Your task to perform on an android device: turn on javascript in the chrome app Image 0: 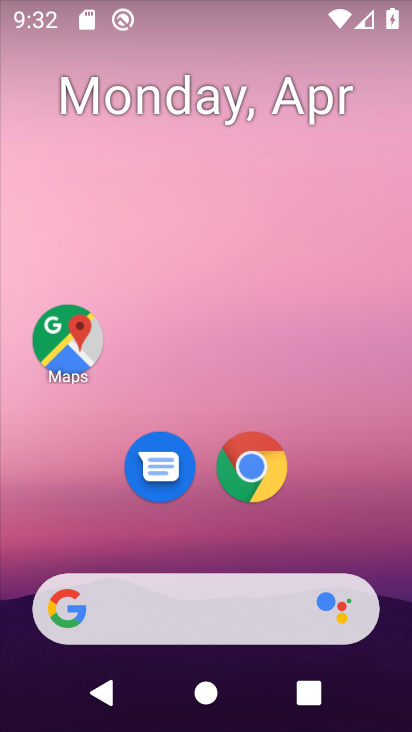
Step 0: click (252, 465)
Your task to perform on an android device: turn on javascript in the chrome app Image 1: 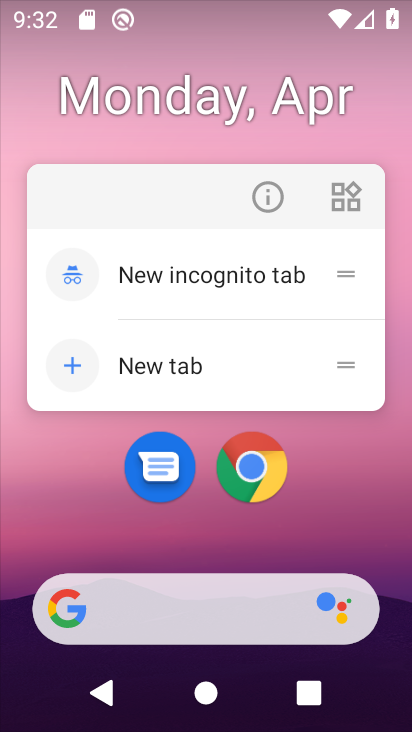
Step 1: click (239, 458)
Your task to perform on an android device: turn on javascript in the chrome app Image 2: 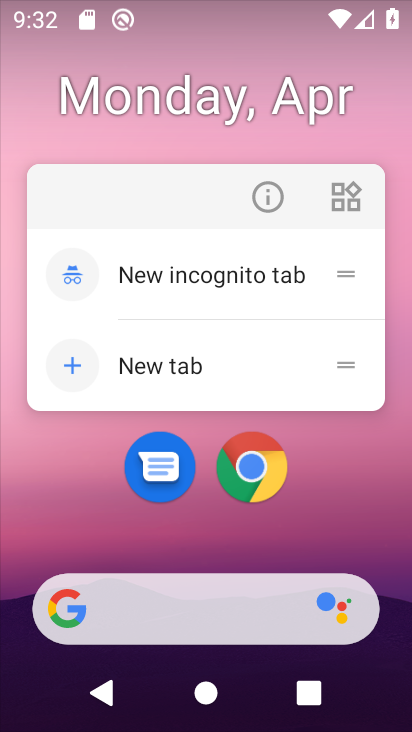
Step 2: click (249, 471)
Your task to perform on an android device: turn on javascript in the chrome app Image 3: 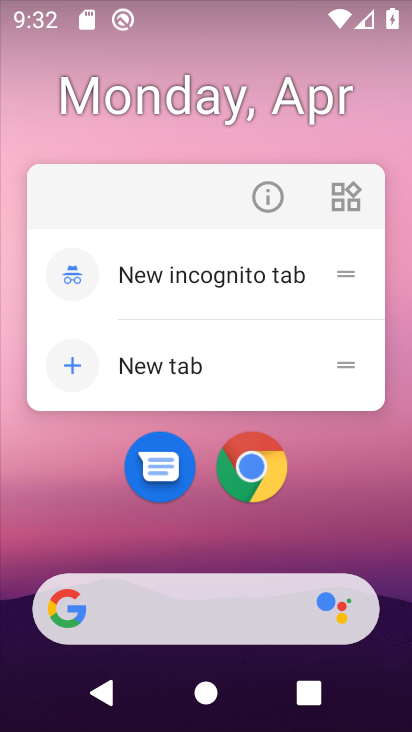
Step 3: click (247, 465)
Your task to perform on an android device: turn on javascript in the chrome app Image 4: 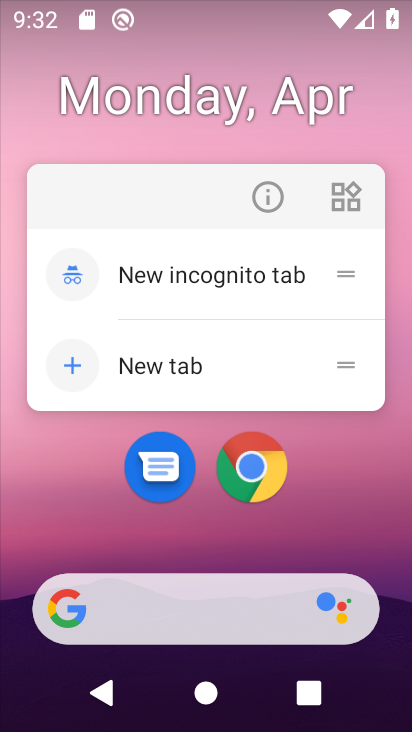
Step 4: click (250, 453)
Your task to perform on an android device: turn on javascript in the chrome app Image 5: 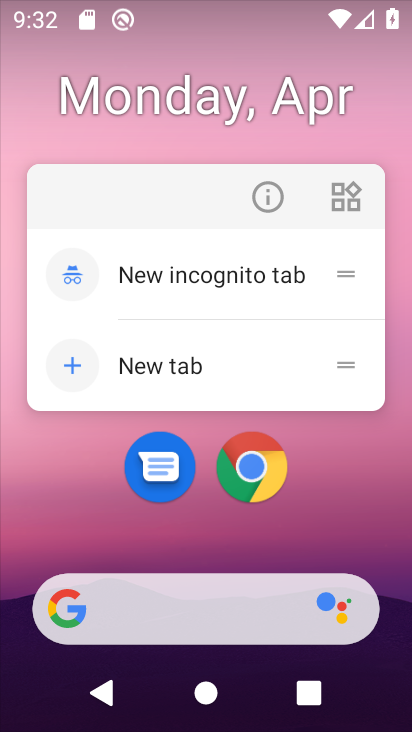
Step 5: click (265, 456)
Your task to perform on an android device: turn on javascript in the chrome app Image 6: 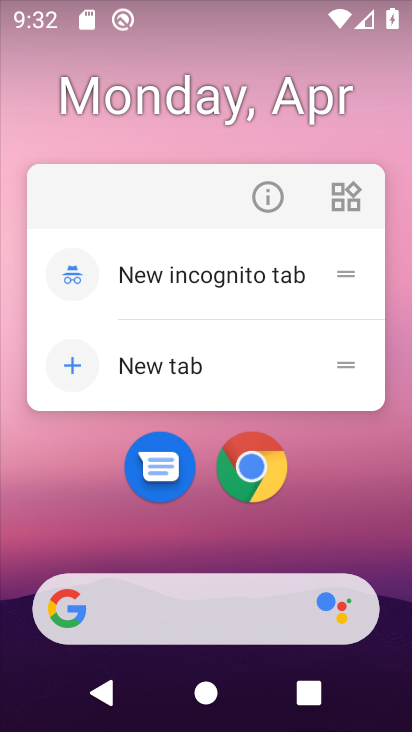
Step 6: click (267, 456)
Your task to perform on an android device: turn on javascript in the chrome app Image 7: 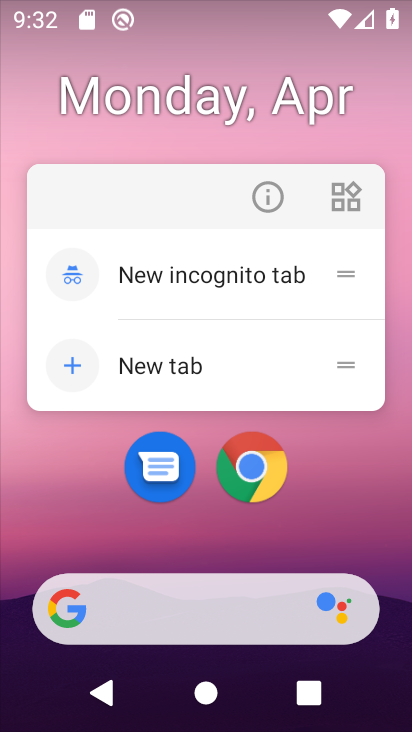
Step 7: click (253, 465)
Your task to perform on an android device: turn on javascript in the chrome app Image 8: 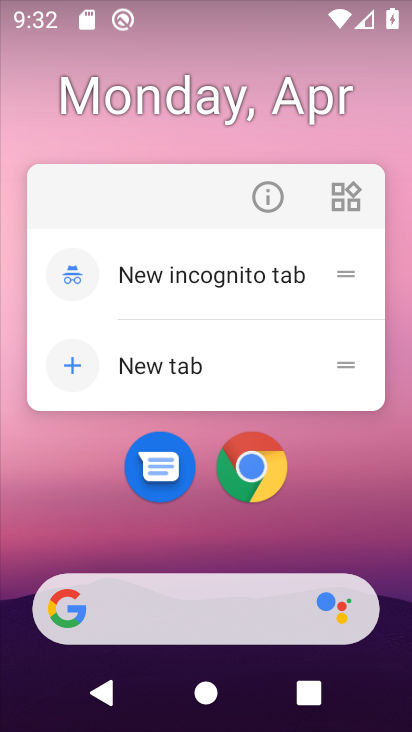
Step 8: click (253, 465)
Your task to perform on an android device: turn on javascript in the chrome app Image 9: 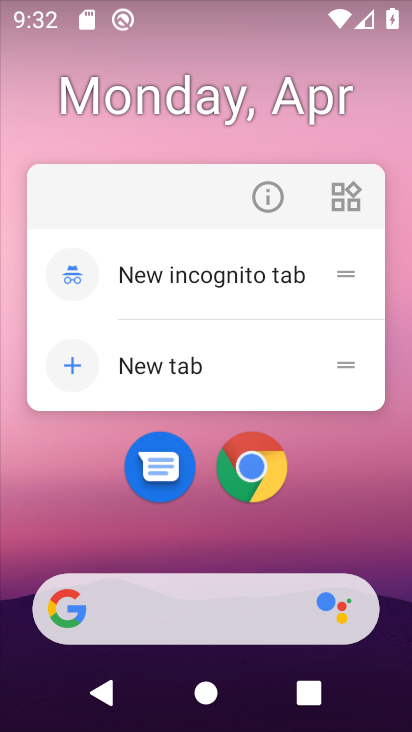
Step 9: click (261, 480)
Your task to perform on an android device: turn on javascript in the chrome app Image 10: 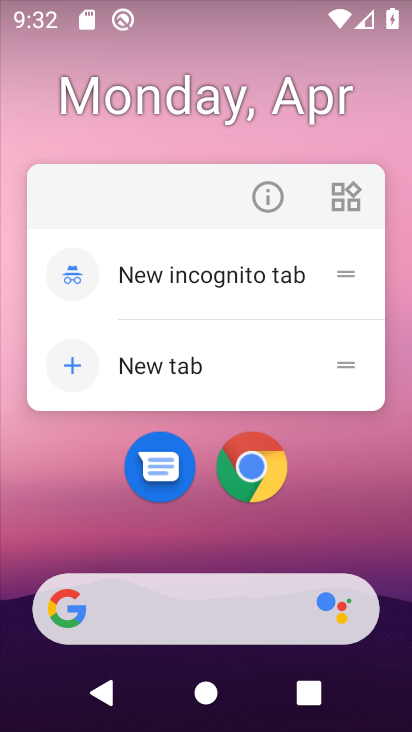
Step 10: click (261, 480)
Your task to perform on an android device: turn on javascript in the chrome app Image 11: 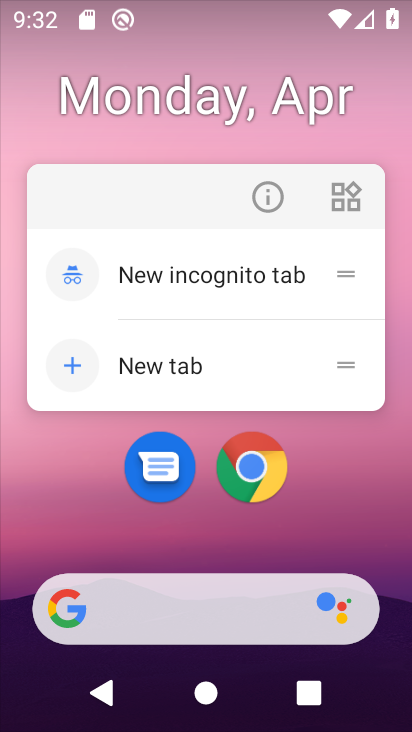
Step 11: click (255, 448)
Your task to perform on an android device: turn on javascript in the chrome app Image 12: 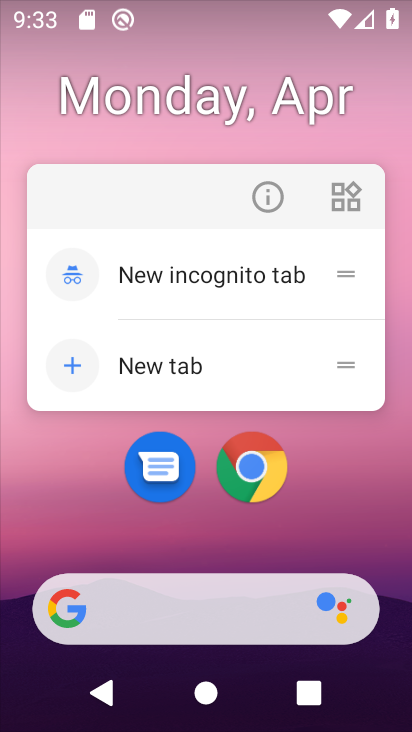
Step 12: click (256, 473)
Your task to perform on an android device: turn on javascript in the chrome app Image 13: 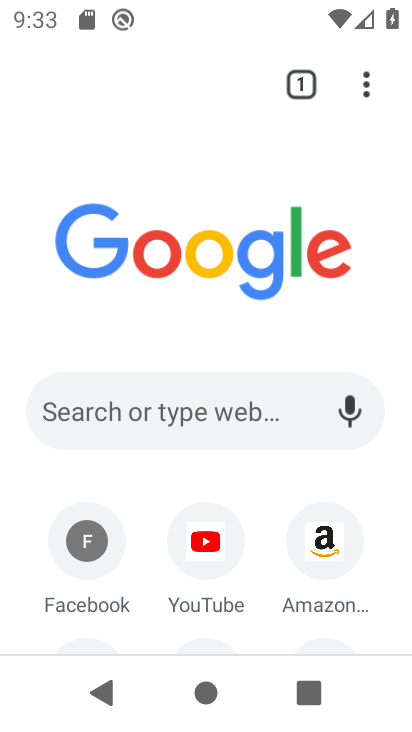
Step 13: click (372, 84)
Your task to perform on an android device: turn on javascript in the chrome app Image 14: 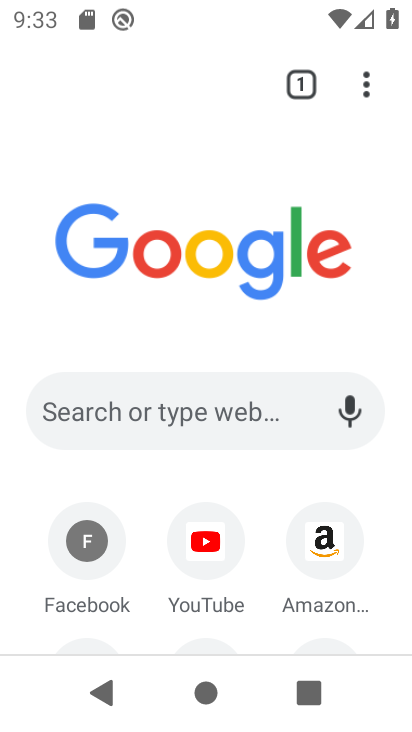
Step 14: click (368, 79)
Your task to perform on an android device: turn on javascript in the chrome app Image 15: 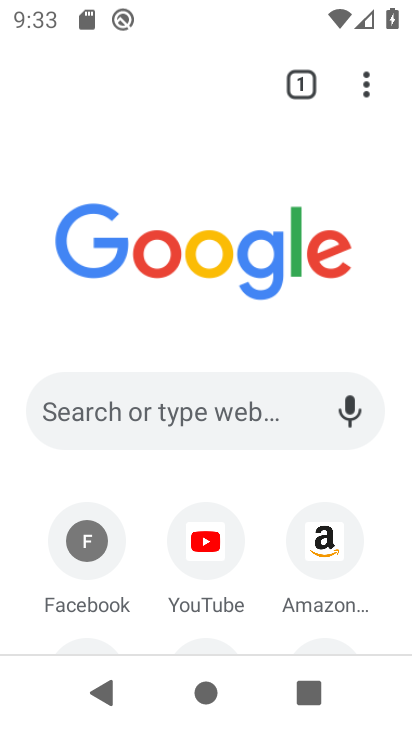
Step 15: drag from (363, 78) to (127, 507)
Your task to perform on an android device: turn on javascript in the chrome app Image 16: 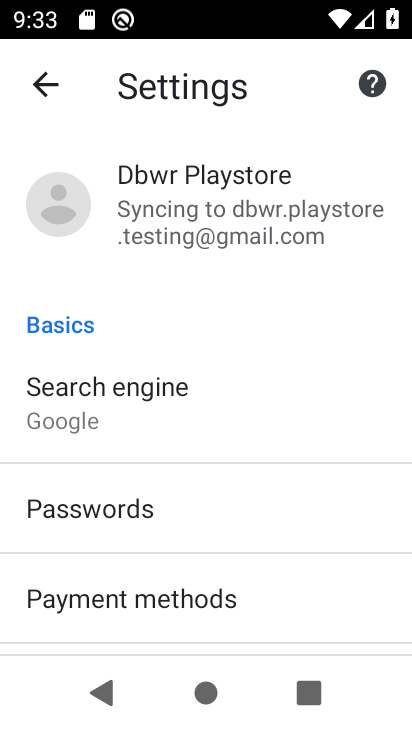
Step 16: drag from (158, 601) to (281, 168)
Your task to perform on an android device: turn on javascript in the chrome app Image 17: 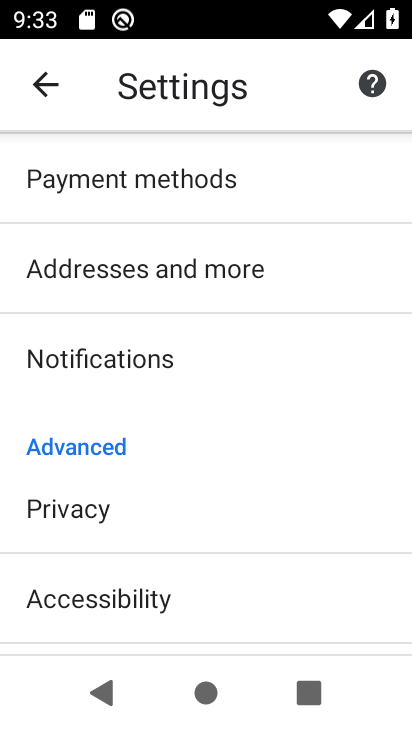
Step 17: drag from (156, 570) to (266, 158)
Your task to perform on an android device: turn on javascript in the chrome app Image 18: 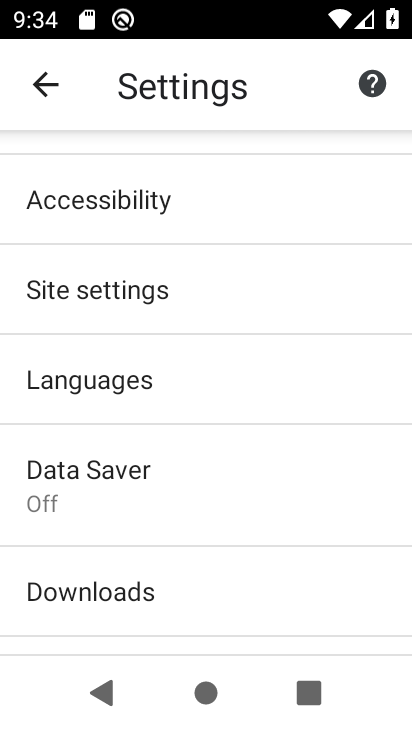
Step 18: drag from (148, 578) to (206, 444)
Your task to perform on an android device: turn on javascript in the chrome app Image 19: 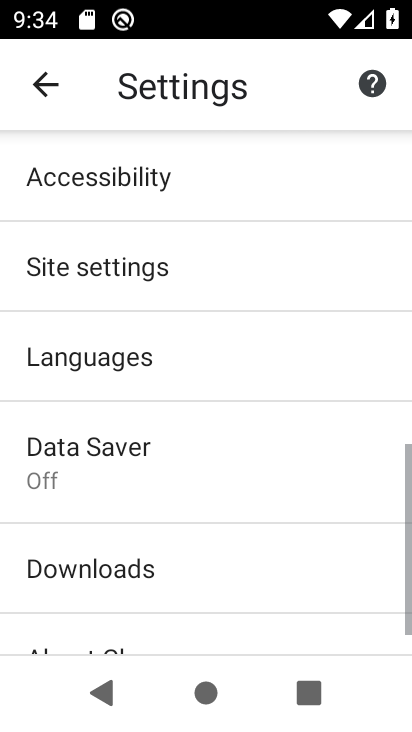
Step 19: click (75, 227)
Your task to perform on an android device: turn on javascript in the chrome app Image 20: 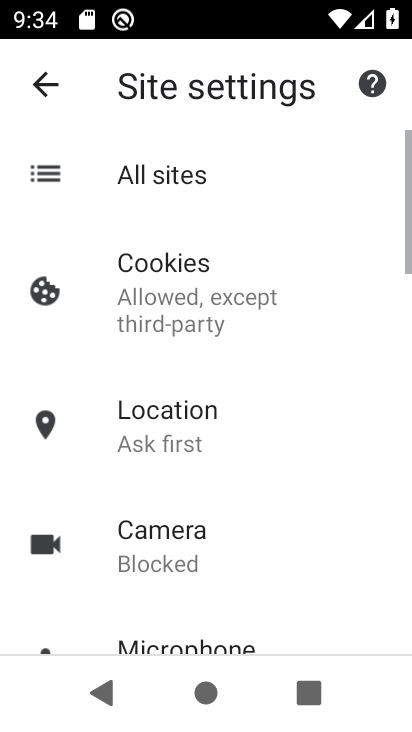
Step 20: drag from (180, 599) to (285, 291)
Your task to perform on an android device: turn on javascript in the chrome app Image 21: 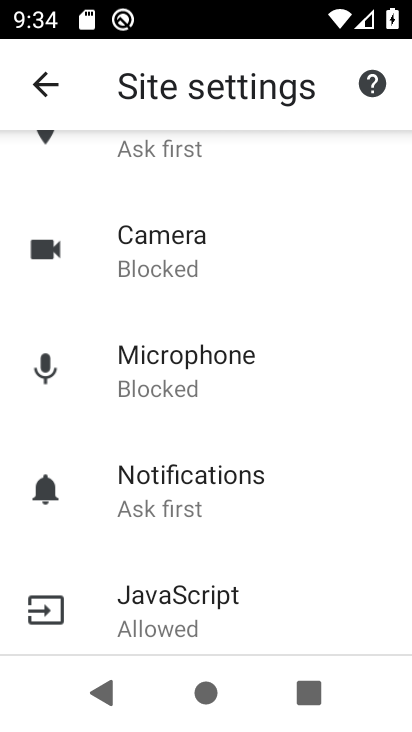
Step 21: click (181, 592)
Your task to perform on an android device: turn on javascript in the chrome app Image 22: 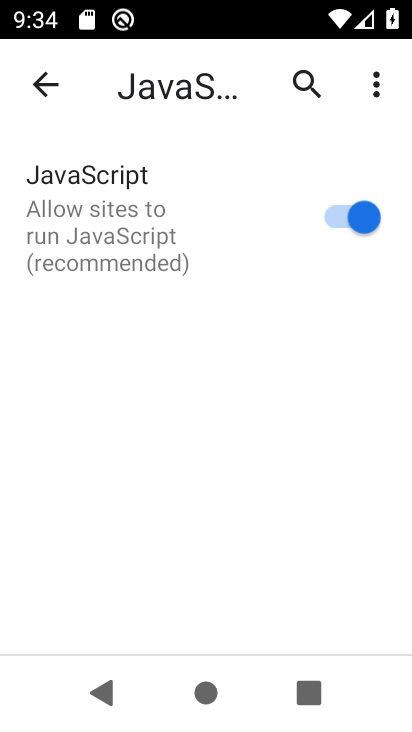
Step 22: task complete